Your task to perform on an android device: check data usage Image 0: 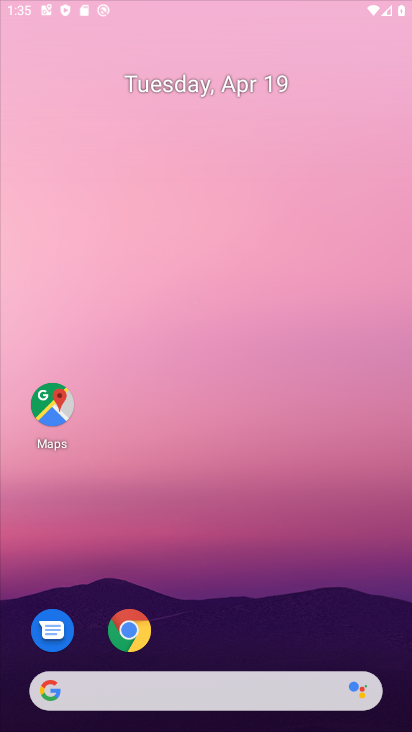
Step 0: drag from (168, 240) to (155, 151)
Your task to perform on an android device: check data usage Image 1: 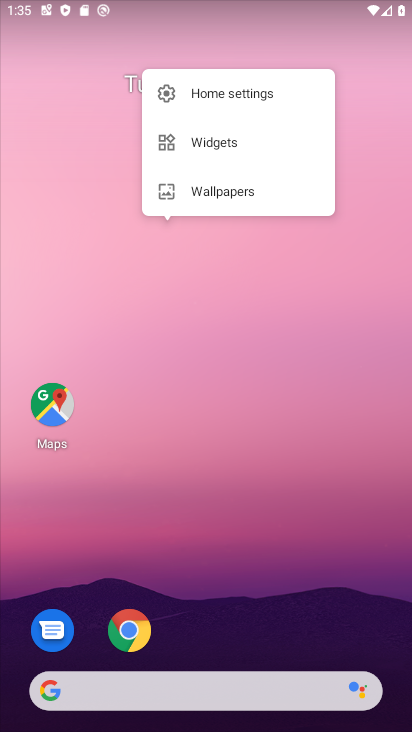
Step 1: drag from (251, 503) to (178, 45)
Your task to perform on an android device: check data usage Image 2: 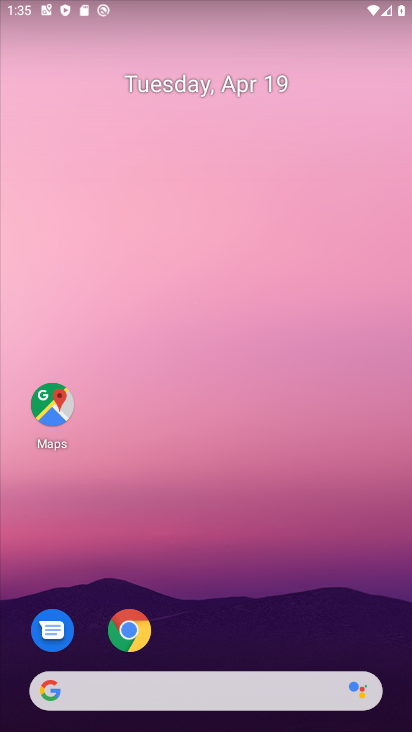
Step 2: drag from (221, 570) to (102, 56)
Your task to perform on an android device: check data usage Image 3: 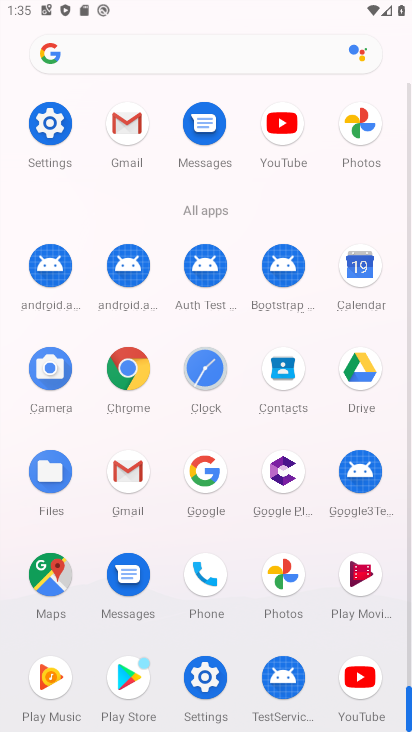
Step 3: click (42, 124)
Your task to perform on an android device: check data usage Image 4: 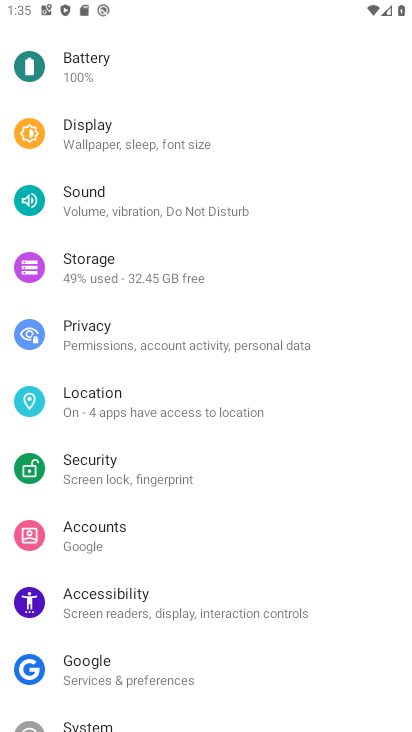
Step 4: drag from (240, 119) to (240, 511)
Your task to perform on an android device: check data usage Image 5: 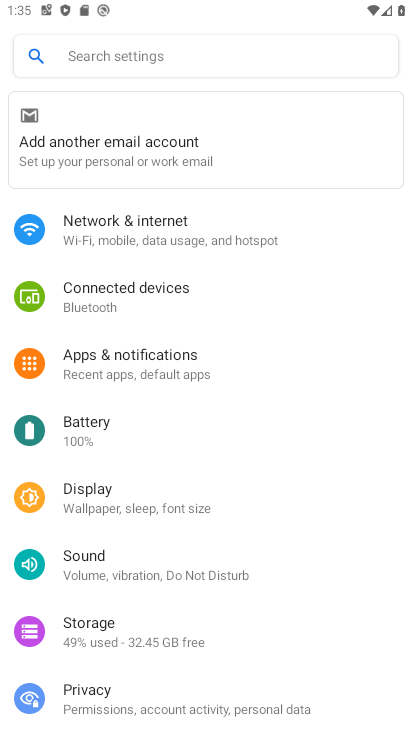
Step 5: click (132, 203)
Your task to perform on an android device: check data usage Image 6: 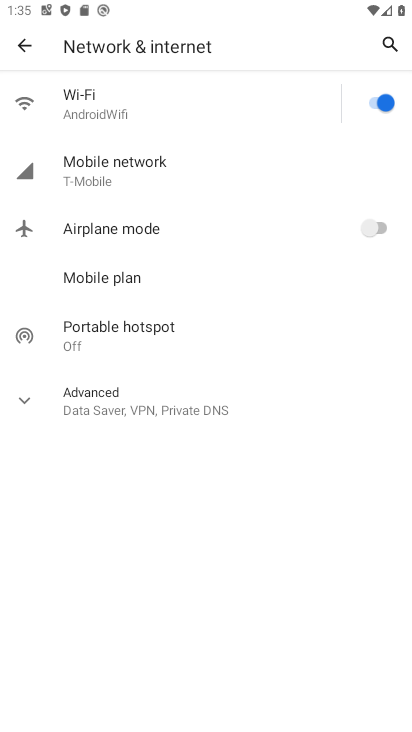
Step 6: click (97, 166)
Your task to perform on an android device: check data usage Image 7: 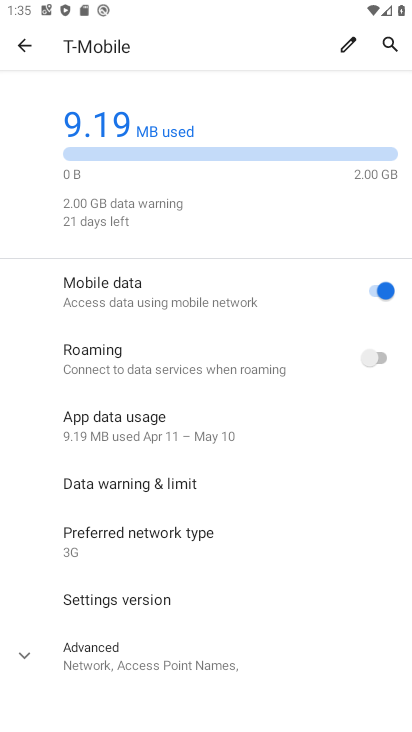
Step 7: click (100, 428)
Your task to perform on an android device: check data usage Image 8: 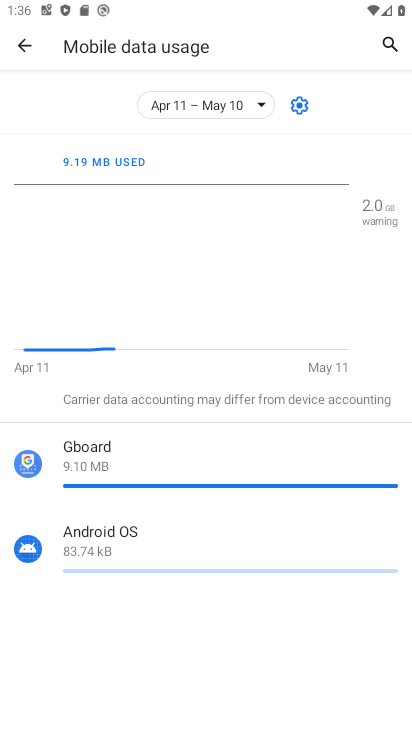
Step 8: task complete